Your task to perform on an android device: Go to notification settings Image 0: 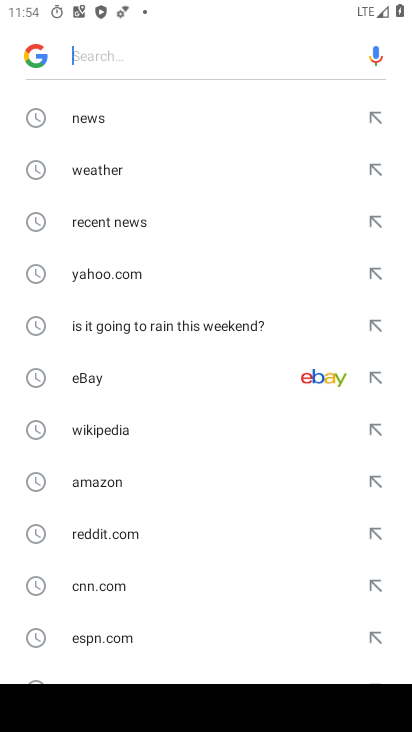
Step 0: press home button
Your task to perform on an android device: Go to notification settings Image 1: 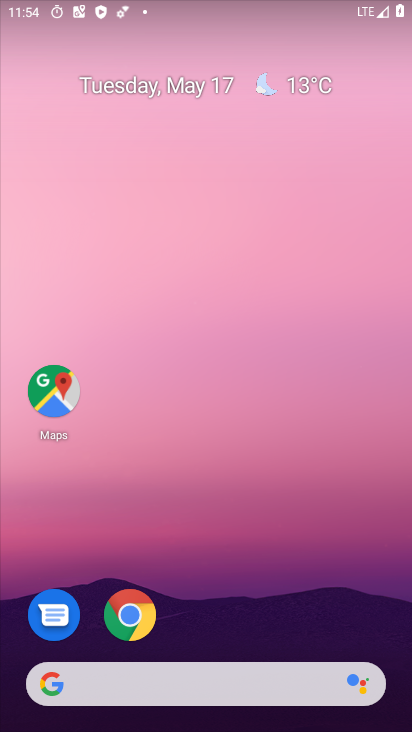
Step 1: drag from (155, 686) to (273, 77)
Your task to perform on an android device: Go to notification settings Image 2: 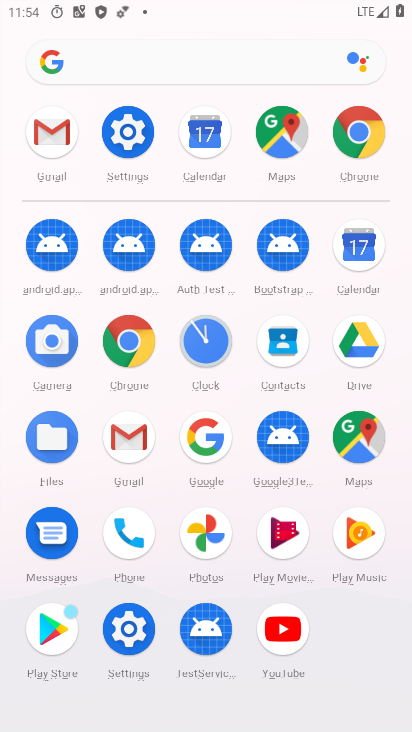
Step 2: click (138, 135)
Your task to perform on an android device: Go to notification settings Image 3: 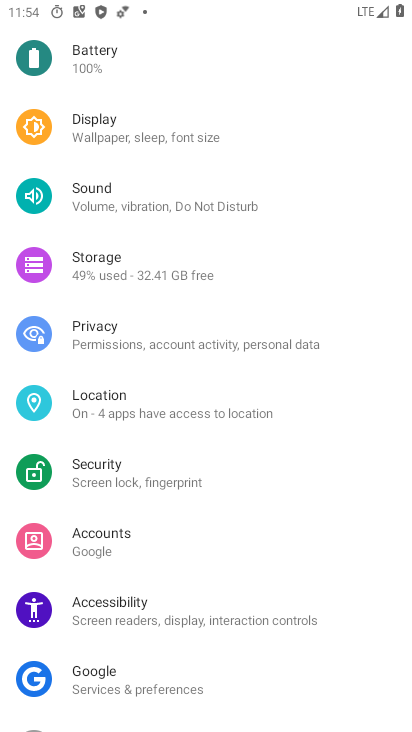
Step 3: drag from (301, 163) to (270, 567)
Your task to perform on an android device: Go to notification settings Image 4: 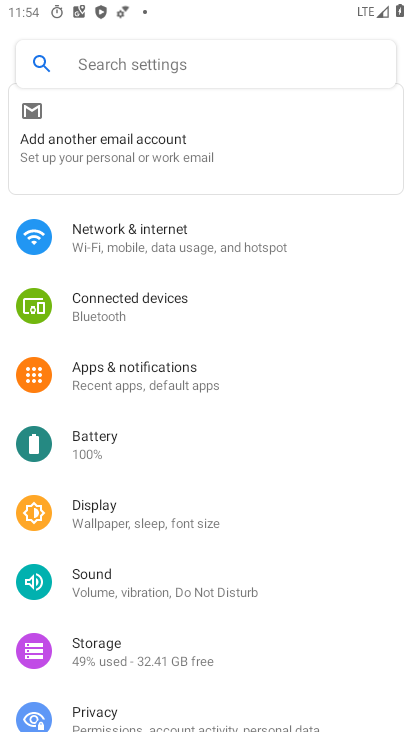
Step 4: click (167, 379)
Your task to perform on an android device: Go to notification settings Image 5: 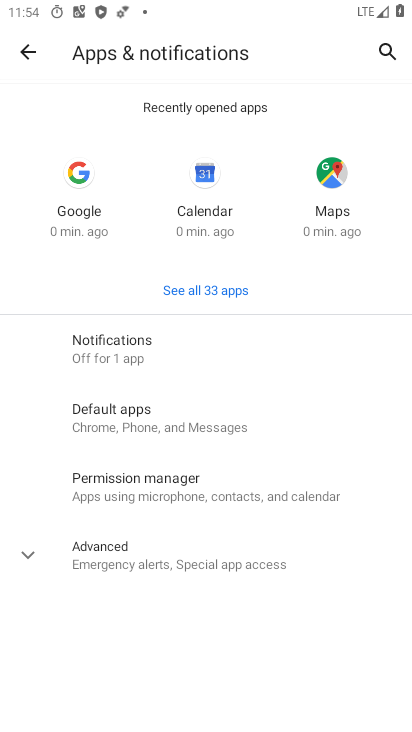
Step 5: click (110, 354)
Your task to perform on an android device: Go to notification settings Image 6: 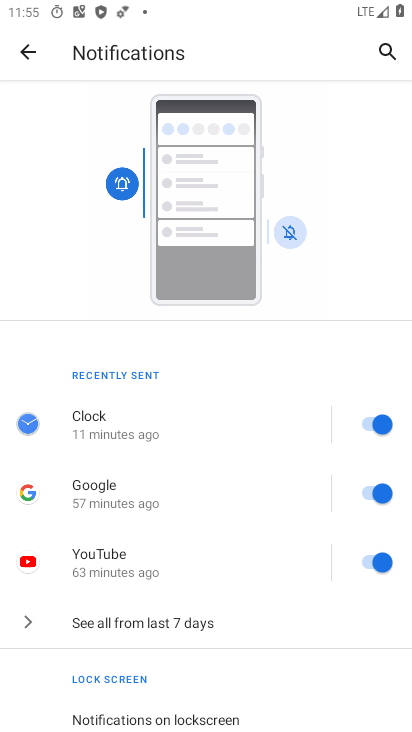
Step 6: task complete